Your task to perform on an android device: set an alarm Image 0: 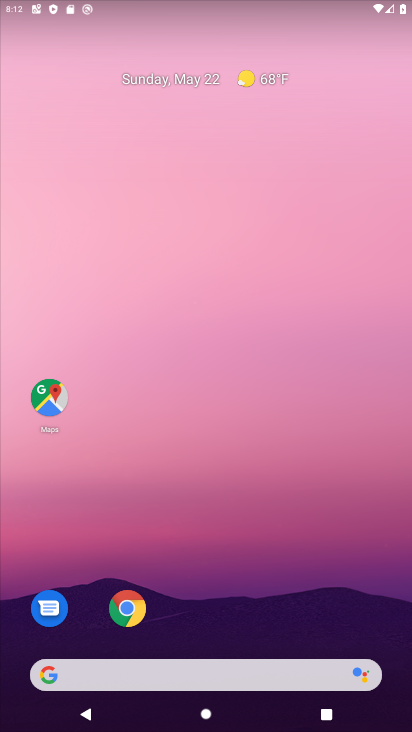
Step 0: drag from (239, 725) to (237, 0)
Your task to perform on an android device: set an alarm Image 1: 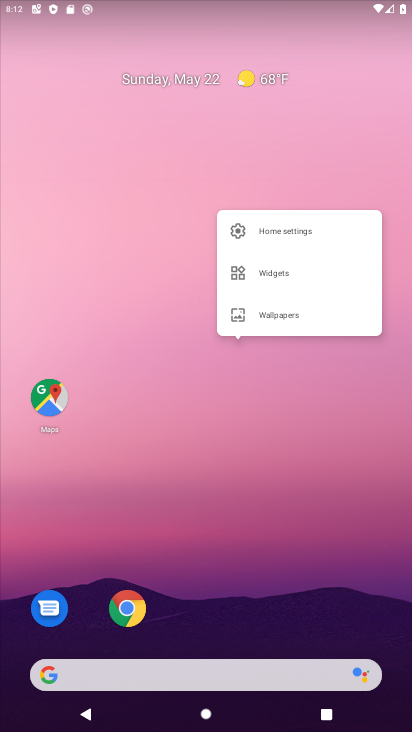
Step 1: click (89, 223)
Your task to perform on an android device: set an alarm Image 2: 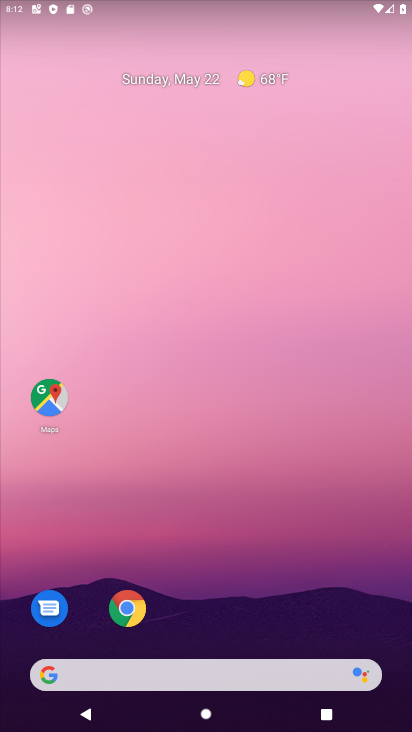
Step 2: drag from (230, 726) to (176, 149)
Your task to perform on an android device: set an alarm Image 3: 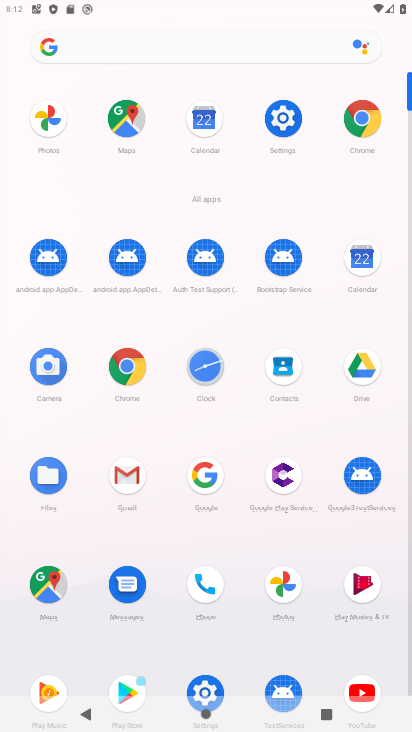
Step 3: click (203, 369)
Your task to perform on an android device: set an alarm Image 4: 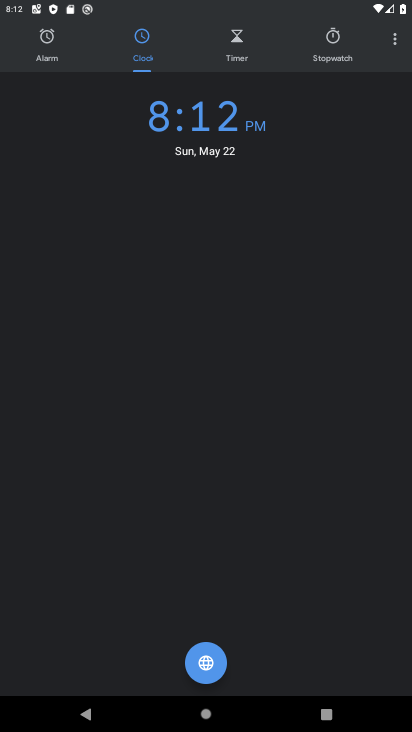
Step 4: click (50, 42)
Your task to perform on an android device: set an alarm Image 5: 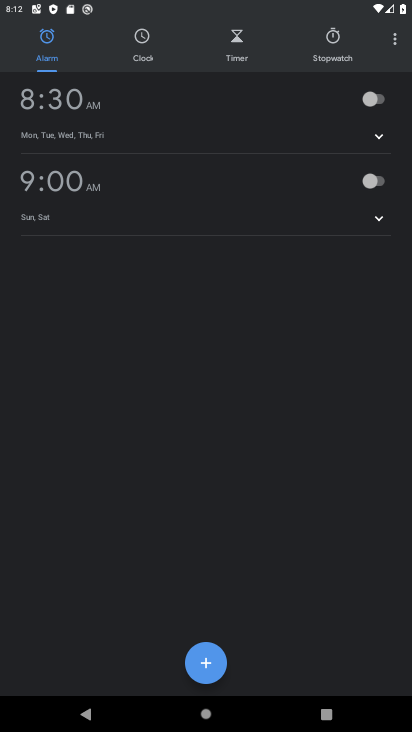
Step 5: click (205, 662)
Your task to perform on an android device: set an alarm Image 6: 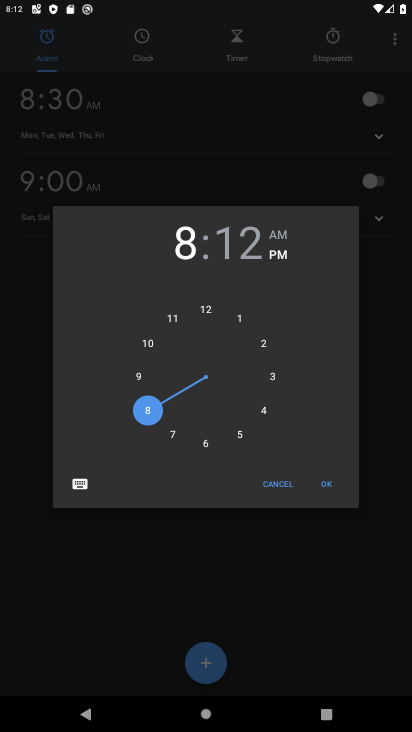
Step 6: click (203, 310)
Your task to perform on an android device: set an alarm Image 7: 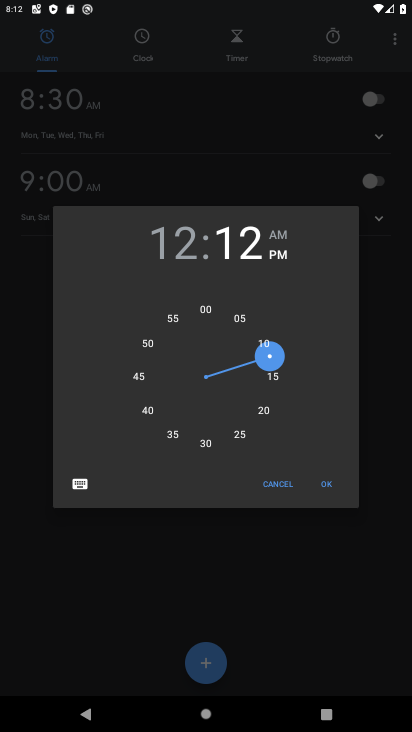
Step 7: click (329, 484)
Your task to perform on an android device: set an alarm Image 8: 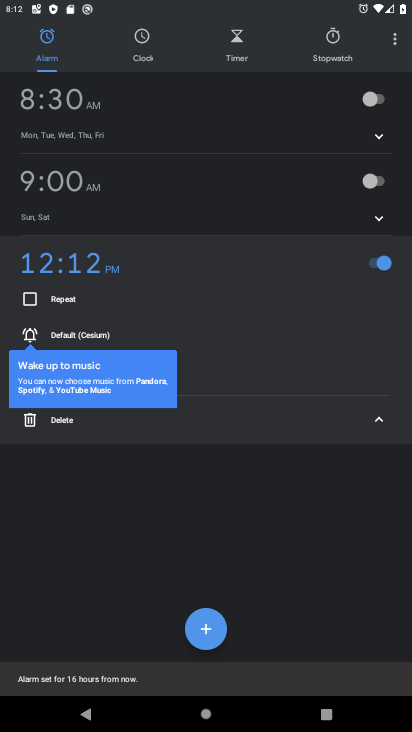
Step 8: task complete